Your task to perform on an android device: turn off sleep mode Image 0: 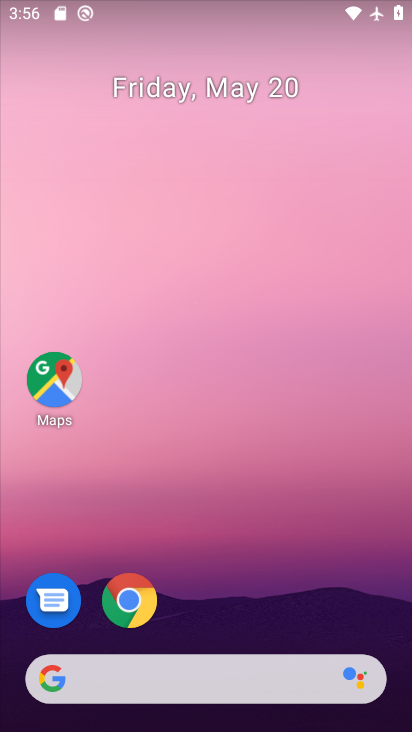
Step 0: drag from (314, 514) to (254, 41)
Your task to perform on an android device: turn off sleep mode Image 1: 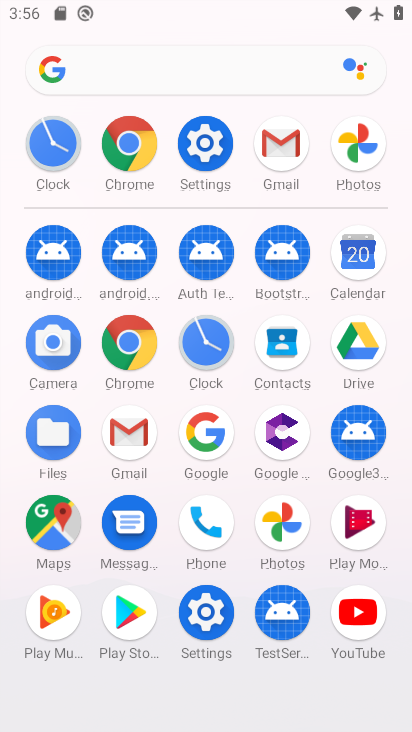
Step 1: click (222, 127)
Your task to perform on an android device: turn off sleep mode Image 2: 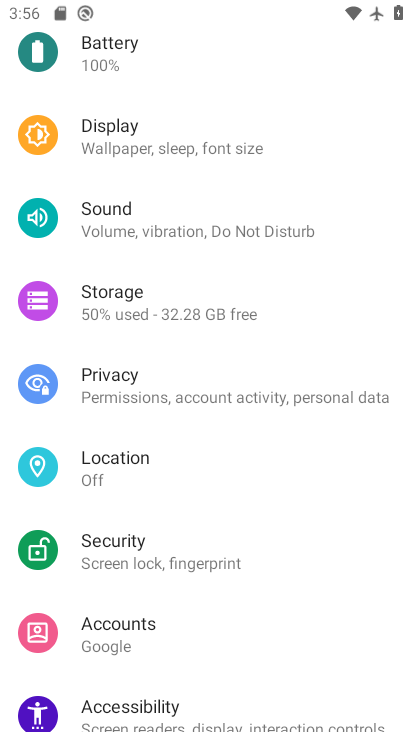
Step 2: click (213, 128)
Your task to perform on an android device: turn off sleep mode Image 3: 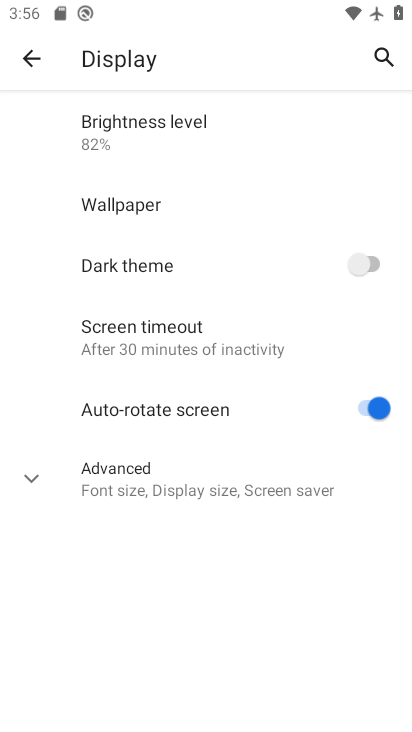
Step 3: task complete